Your task to perform on an android device: What's the weather going to be this weekend? Image 0: 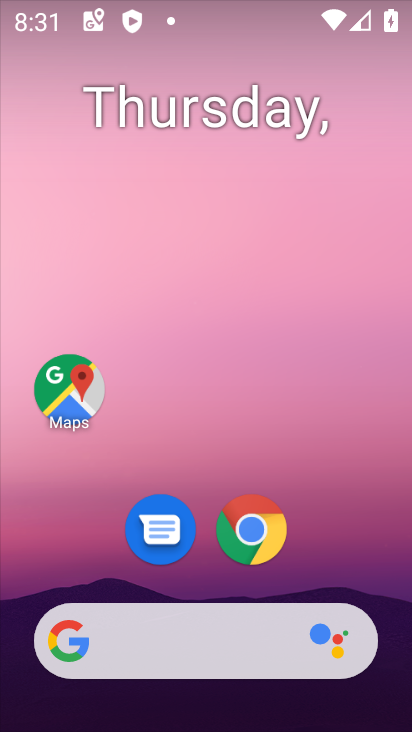
Step 0: drag from (206, 722) to (208, 10)
Your task to perform on an android device: What's the weather going to be this weekend? Image 1: 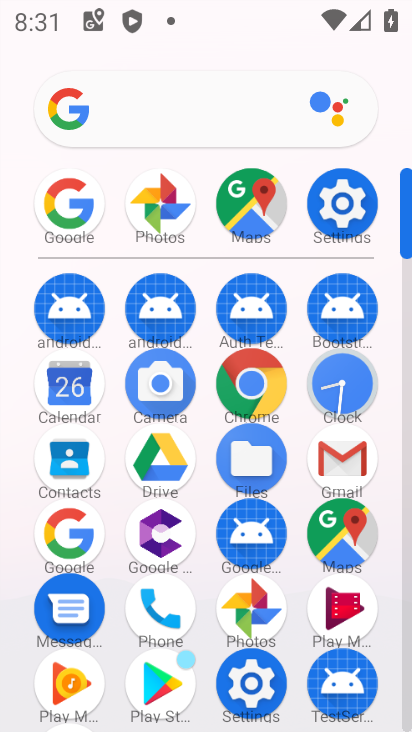
Step 1: click (70, 519)
Your task to perform on an android device: What's the weather going to be this weekend? Image 2: 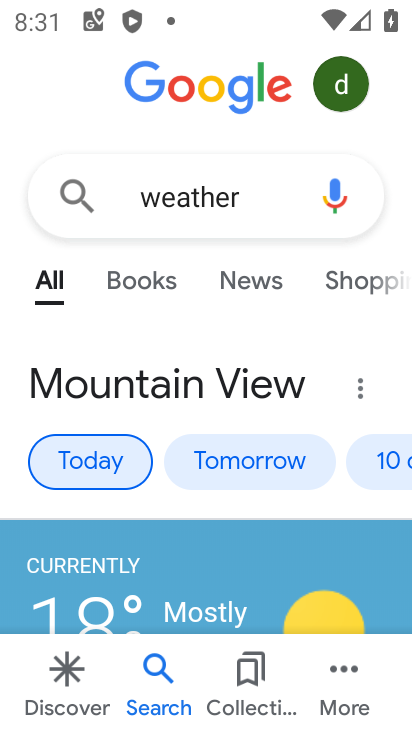
Step 2: click (374, 461)
Your task to perform on an android device: What's the weather going to be this weekend? Image 3: 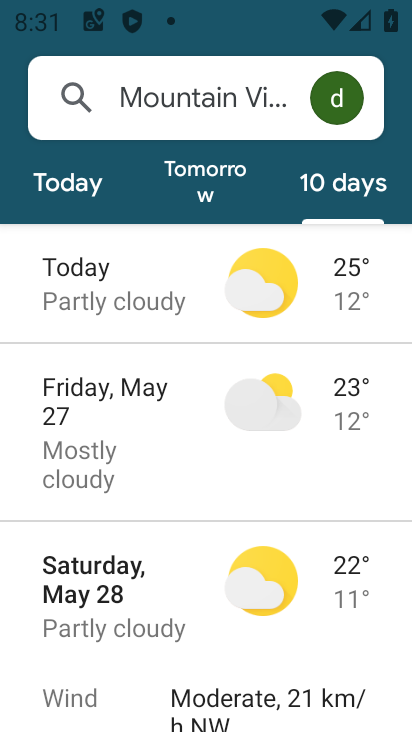
Step 3: task complete